Your task to perform on an android device: check data usage Image 0: 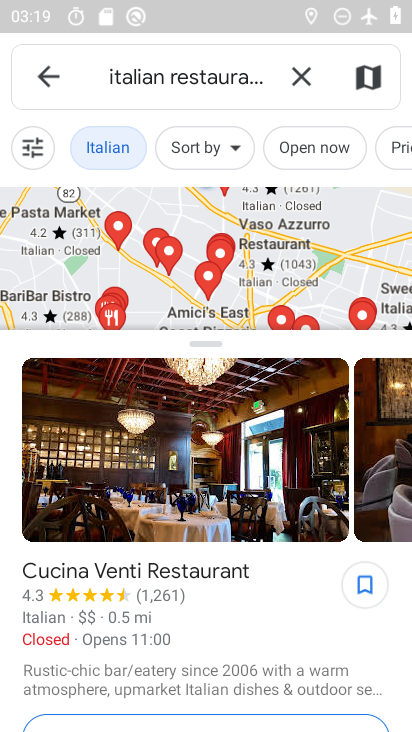
Step 0: press home button
Your task to perform on an android device: check data usage Image 1: 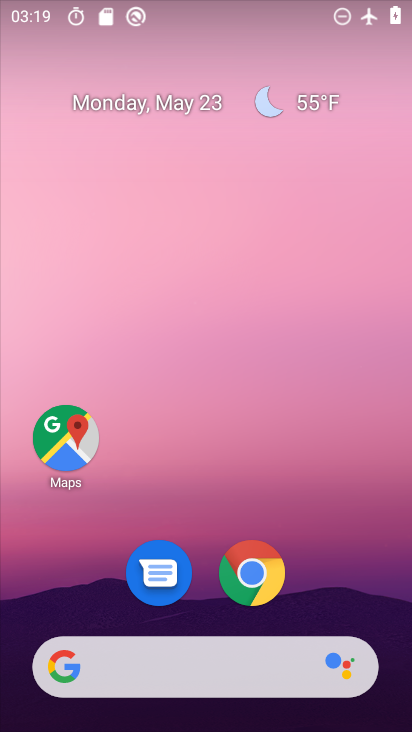
Step 1: drag from (328, 583) to (251, 51)
Your task to perform on an android device: check data usage Image 2: 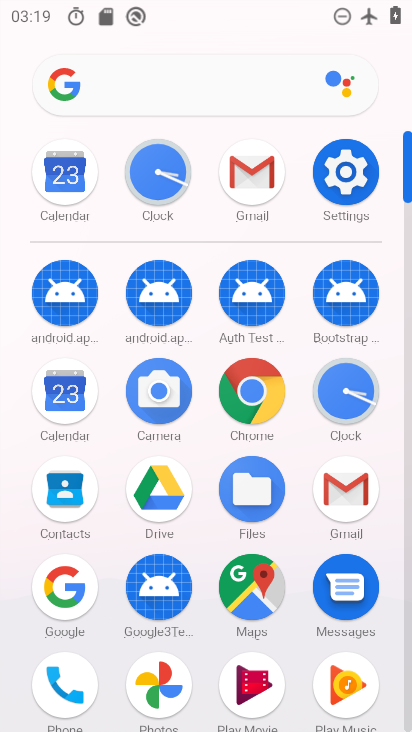
Step 2: click (352, 172)
Your task to perform on an android device: check data usage Image 3: 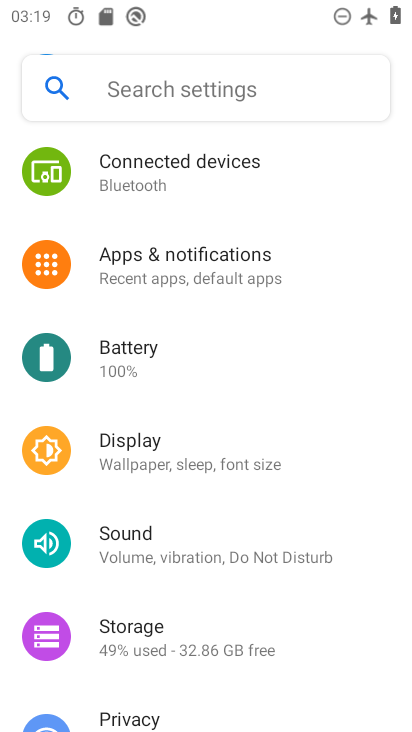
Step 3: drag from (291, 192) to (282, 571)
Your task to perform on an android device: check data usage Image 4: 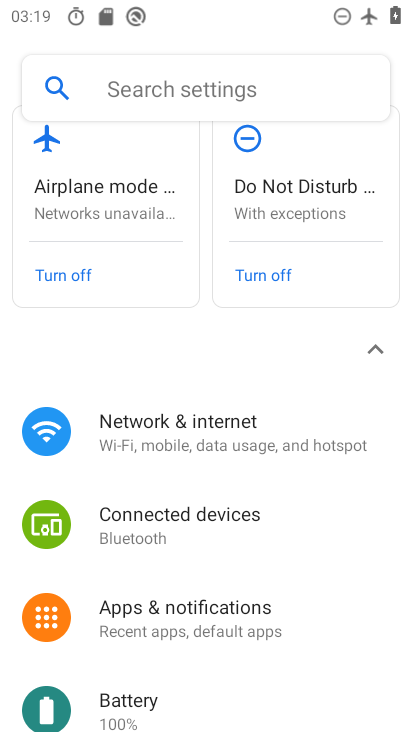
Step 4: click (226, 446)
Your task to perform on an android device: check data usage Image 5: 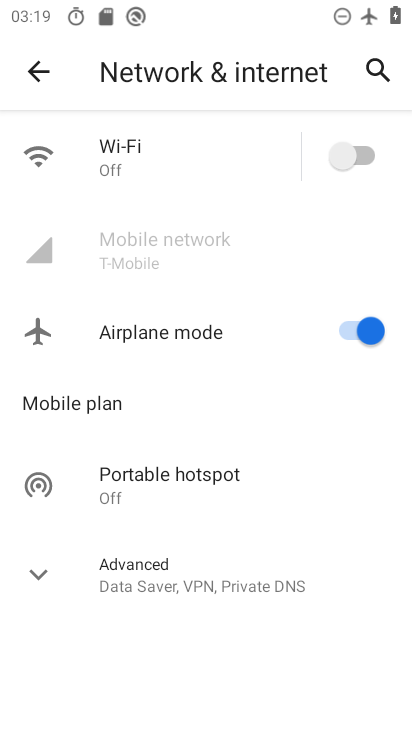
Step 5: click (150, 153)
Your task to perform on an android device: check data usage Image 6: 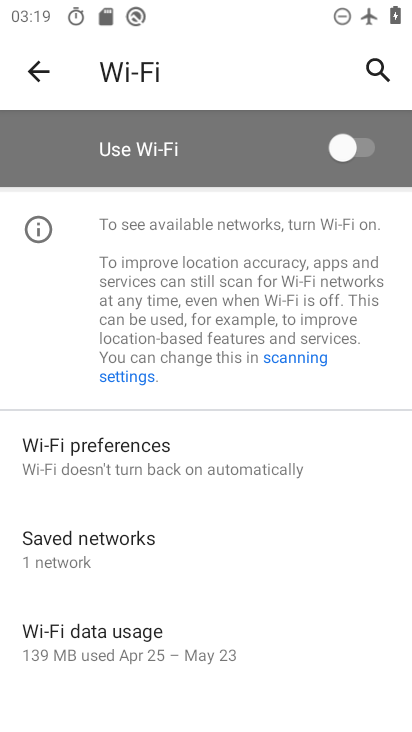
Step 6: click (169, 646)
Your task to perform on an android device: check data usage Image 7: 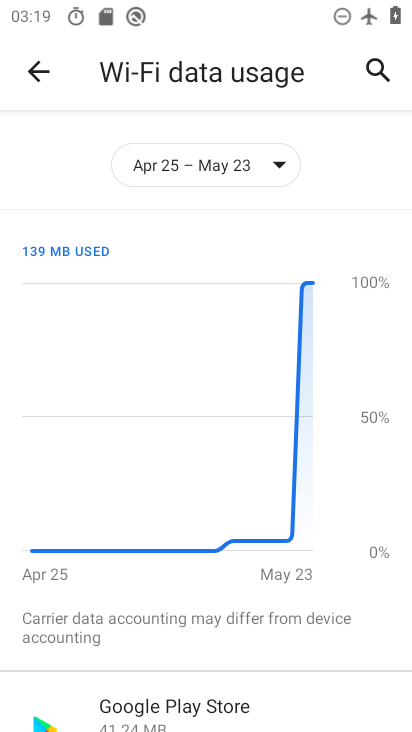
Step 7: task complete